Your task to perform on an android device: See recent photos Image 0: 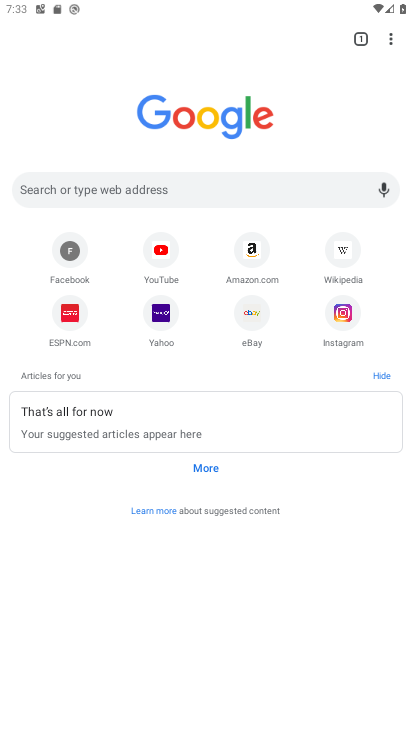
Step 0: press home button
Your task to perform on an android device: See recent photos Image 1: 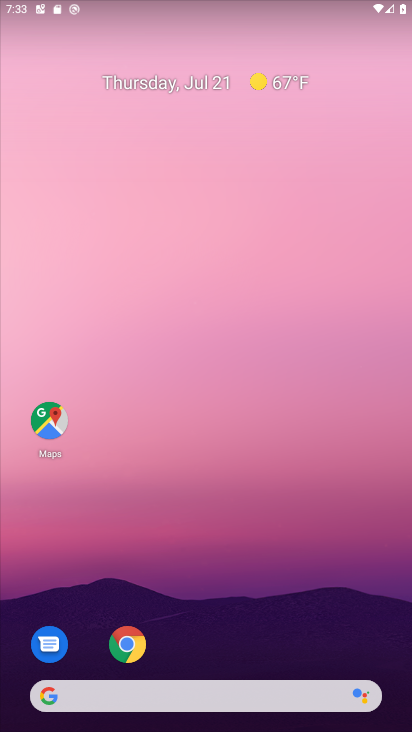
Step 1: drag from (246, 620) to (251, 0)
Your task to perform on an android device: See recent photos Image 2: 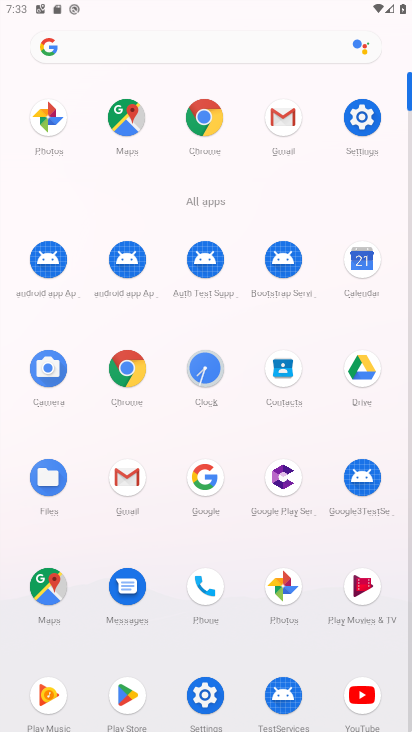
Step 2: click (257, 591)
Your task to perform on an android device: See recent photos Image 3: 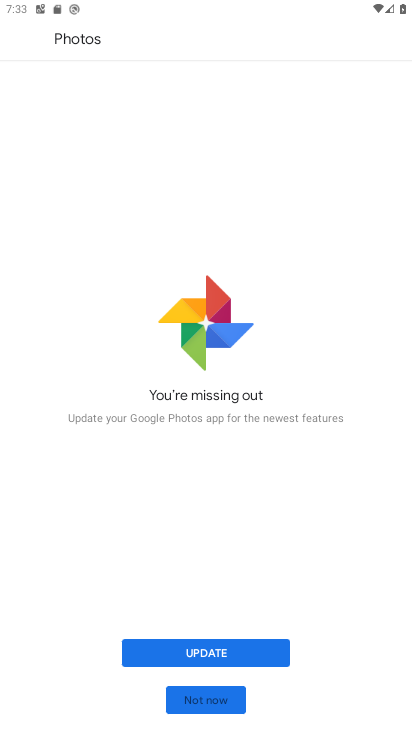
Step 3: click (217, 703)
Your task to perform on an android device: See recent photos Image 4: 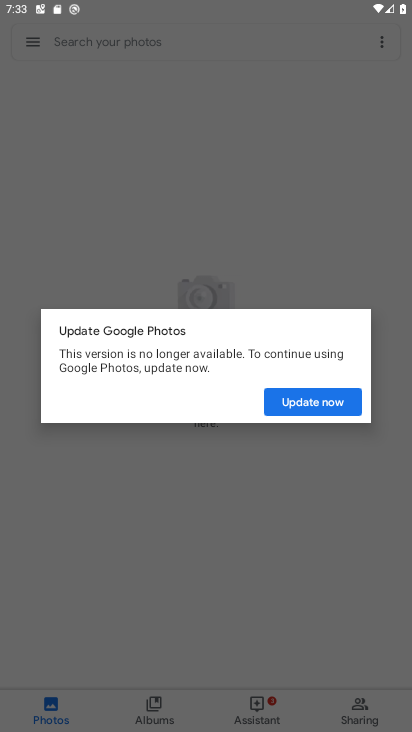
Step 4: click (305, 402)
Your task to perform on an android device: See recent photos Image 5: 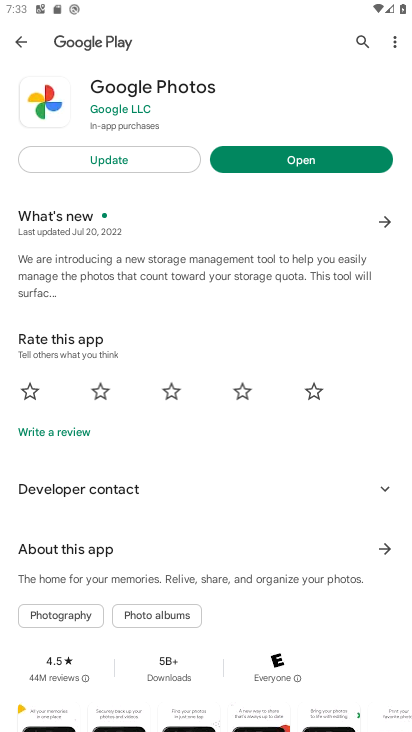
Step 5: click (300, 167)
Your task to perform on an android device: See recent photos Image 6: 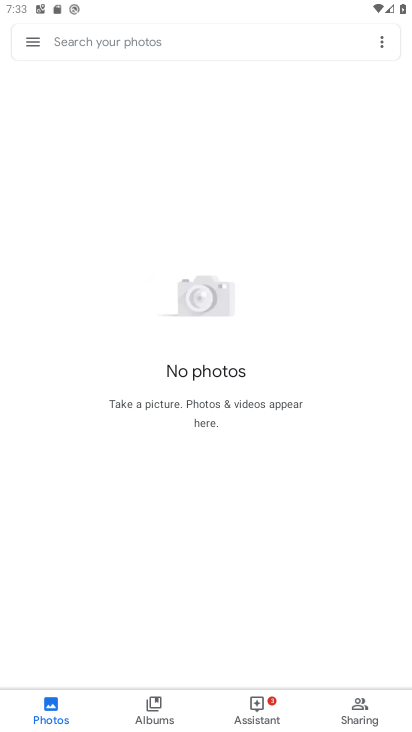
Step 6: task complete